Your task to perform on an android device: open app "Life360: Find Family & Friends" (install if not already installed) Image 0: 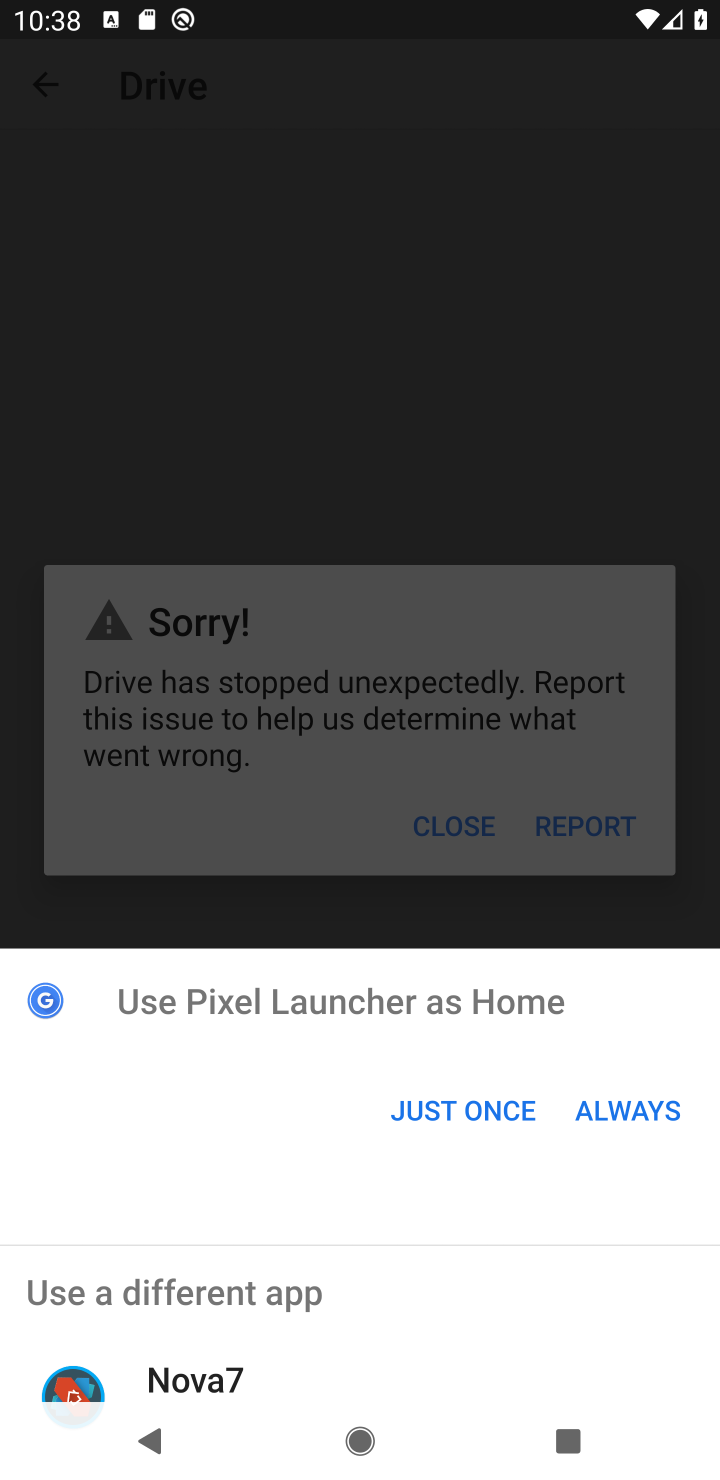
Step 0: press home button
Your task to perform on an android device: open app "Life360: Find Family & Friends" (install if not already installed) Image 1: 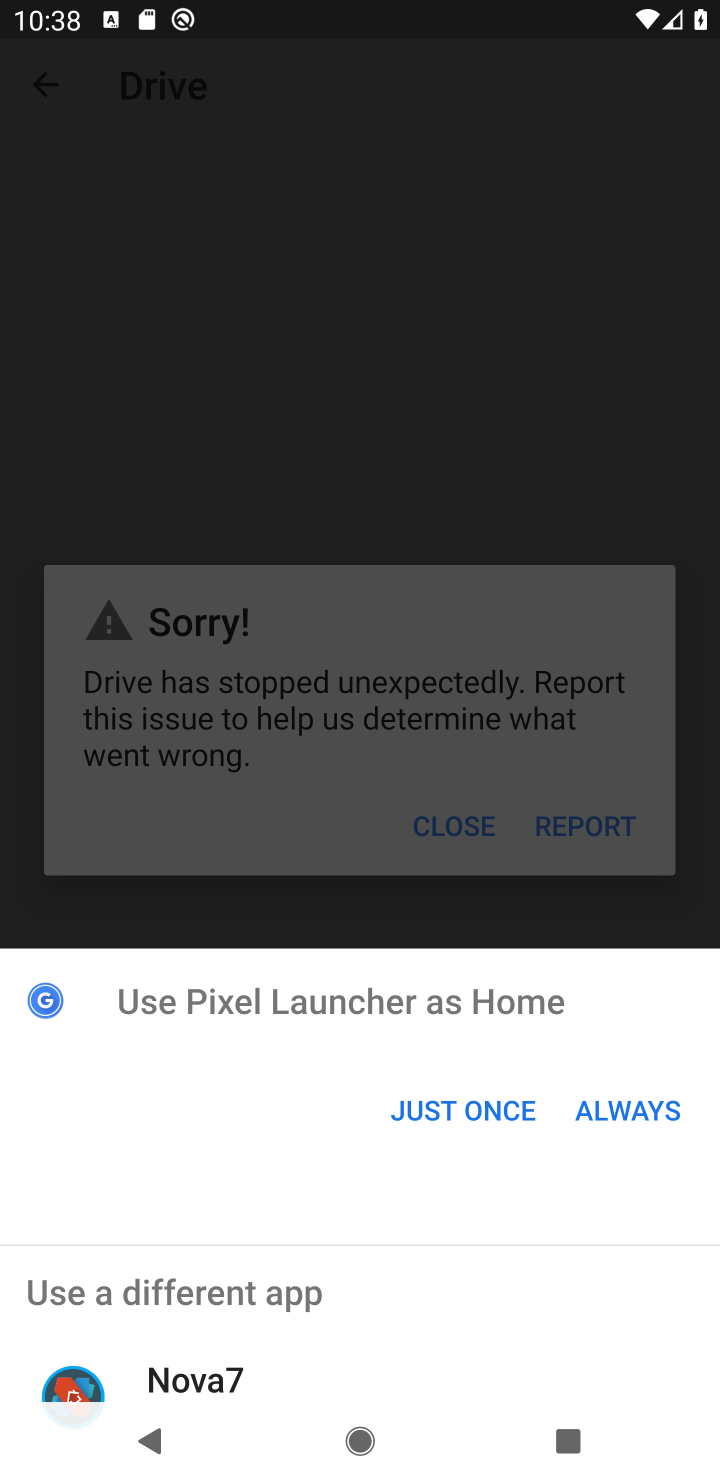
Step 1: click (450, 1114)
Your task to perform on an android device: open app "Life360: Find Family & Friends" (install if not already installed) Image 2: 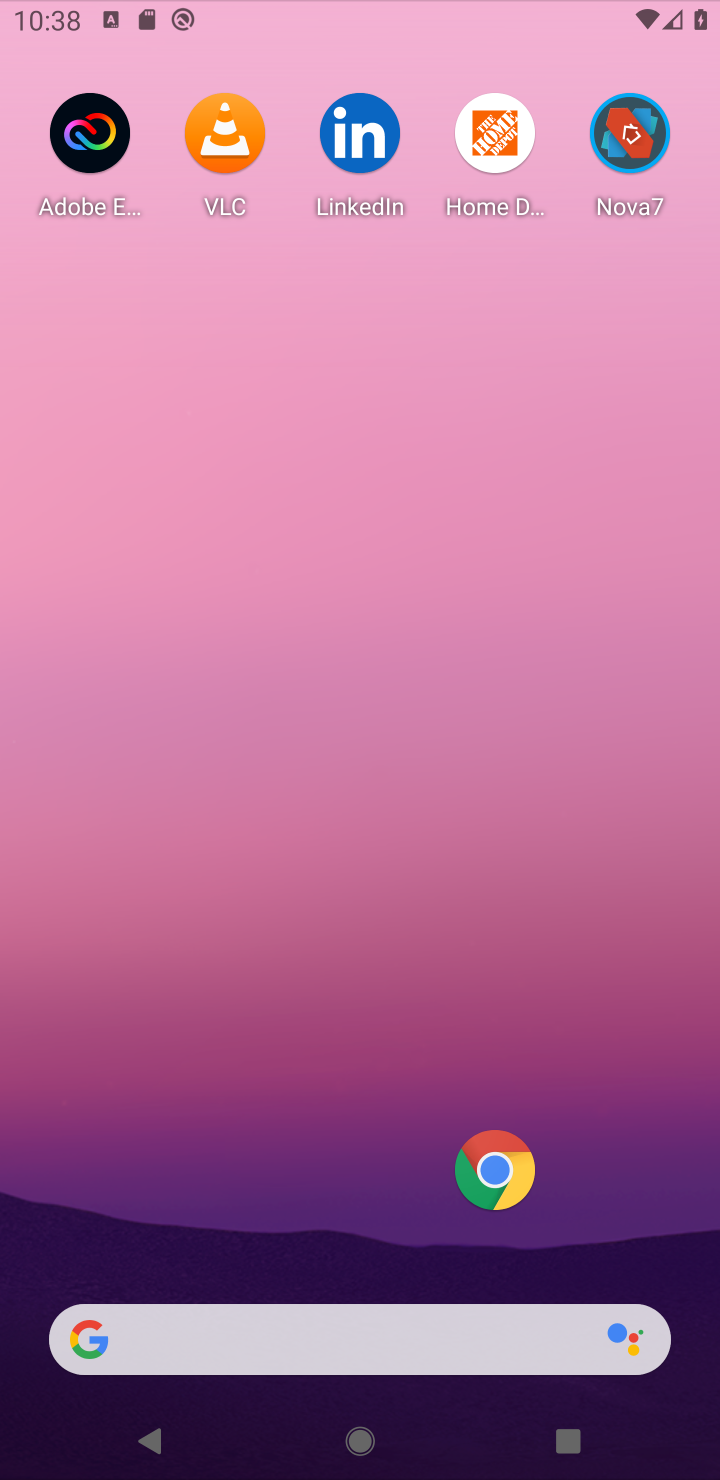
Step 2: press home button
Your task to perform on an android device: open app "Life360: Find Family & Friends" (install if not already installed) Image 3: 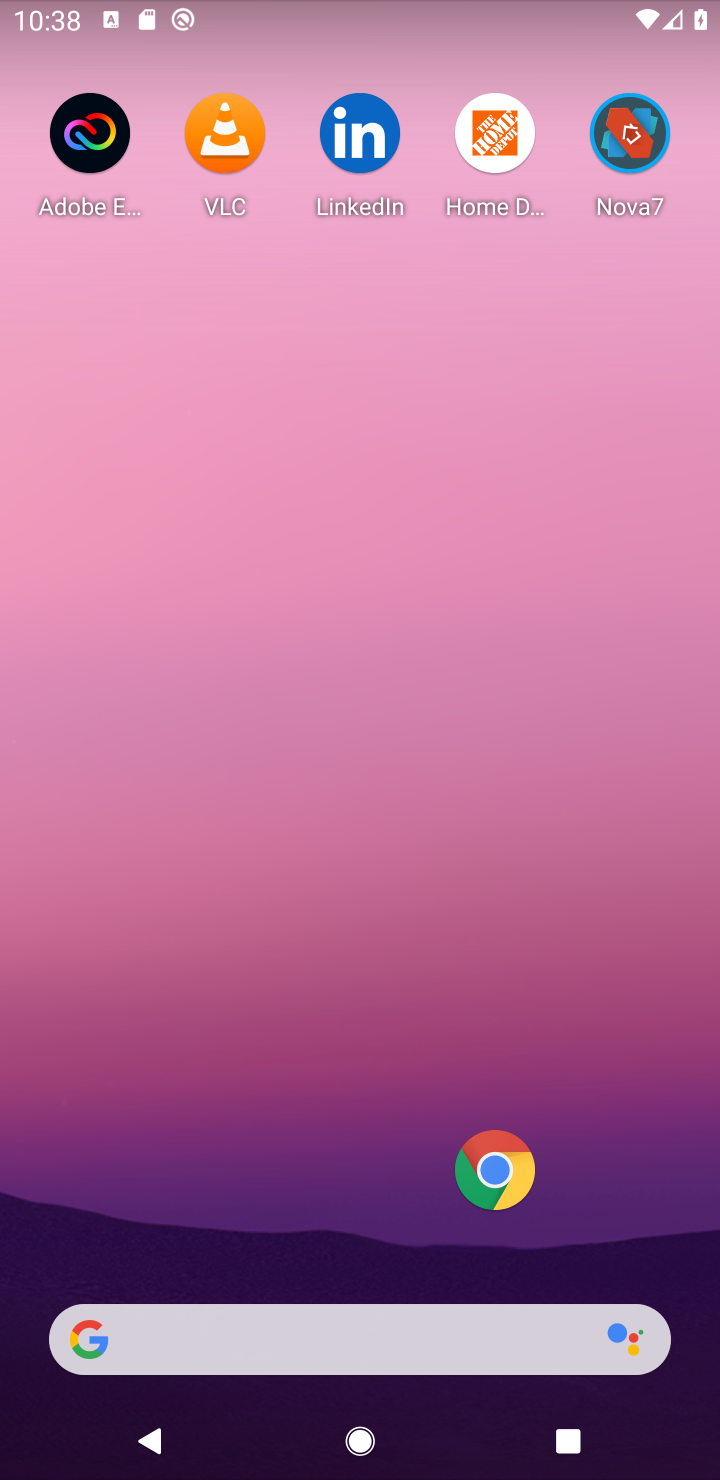
Step 3: drag from (260, 1116) to (404, 183)
Your task to perform on an android device: open app "Life360: Find Family & Friends" (install if not already installed) Image 4: 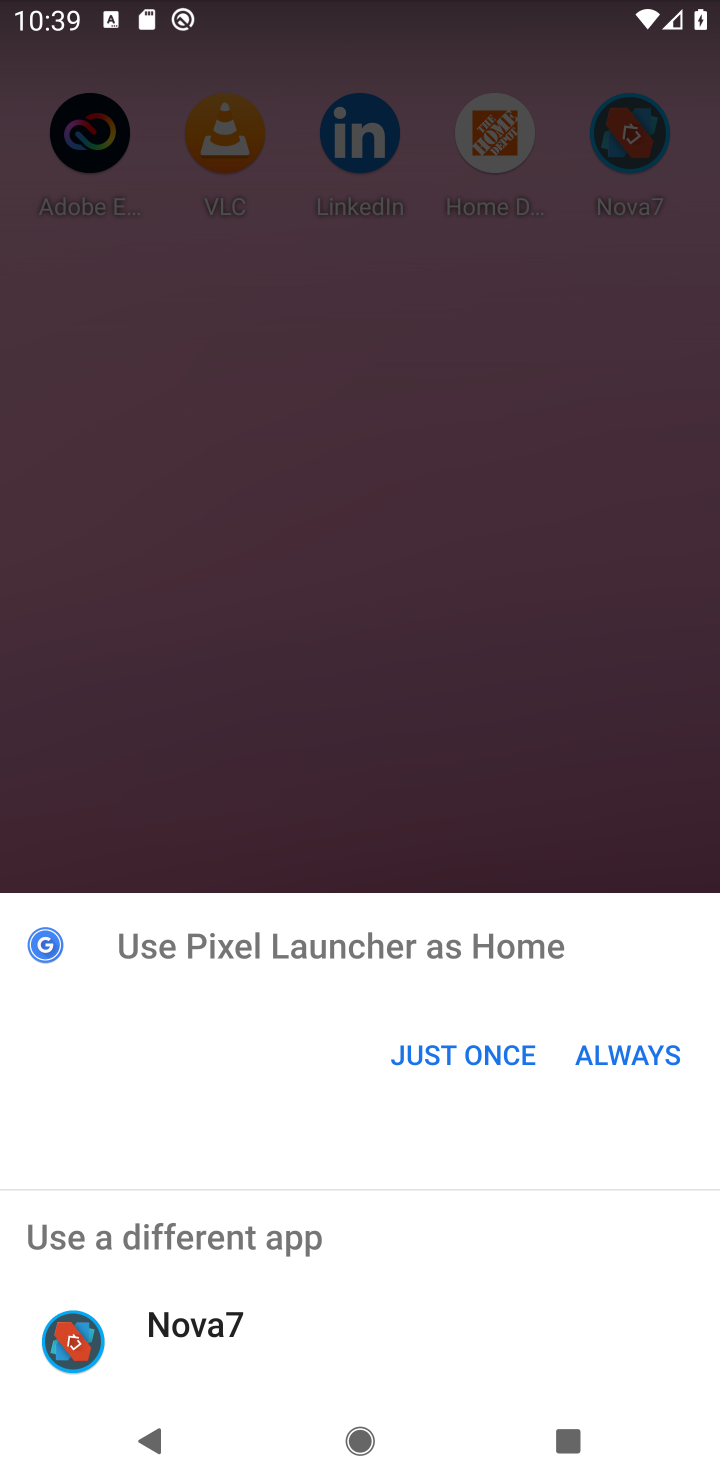
Step 4: press back button
Your task to perform on an android device: open app "Life360: Find Family & Friends" (install if not already installed) Image 5: 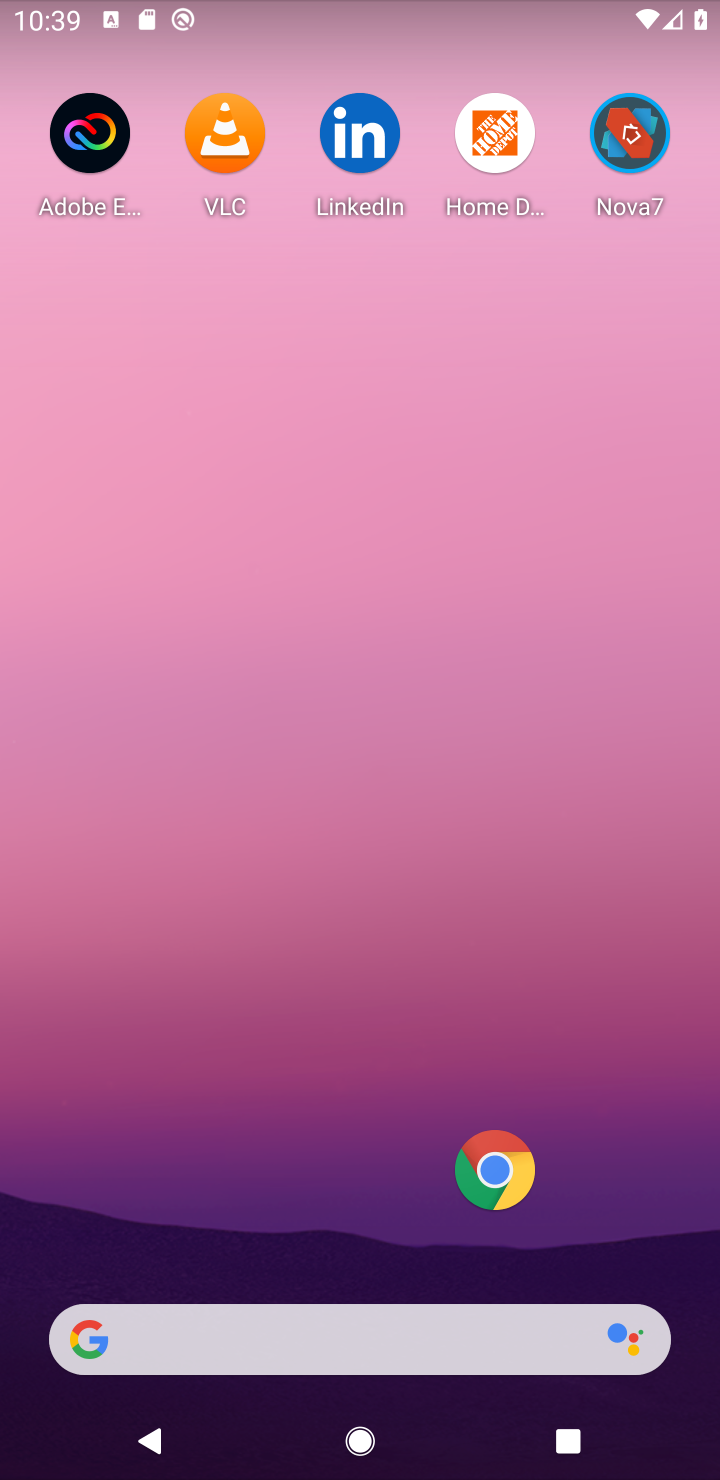
Step 5: drag from (257, 1233) to (363, 74)
Your task to perform on an android device: open app "Life360: Find Family & Friends" (install if not already installed) Image 6: 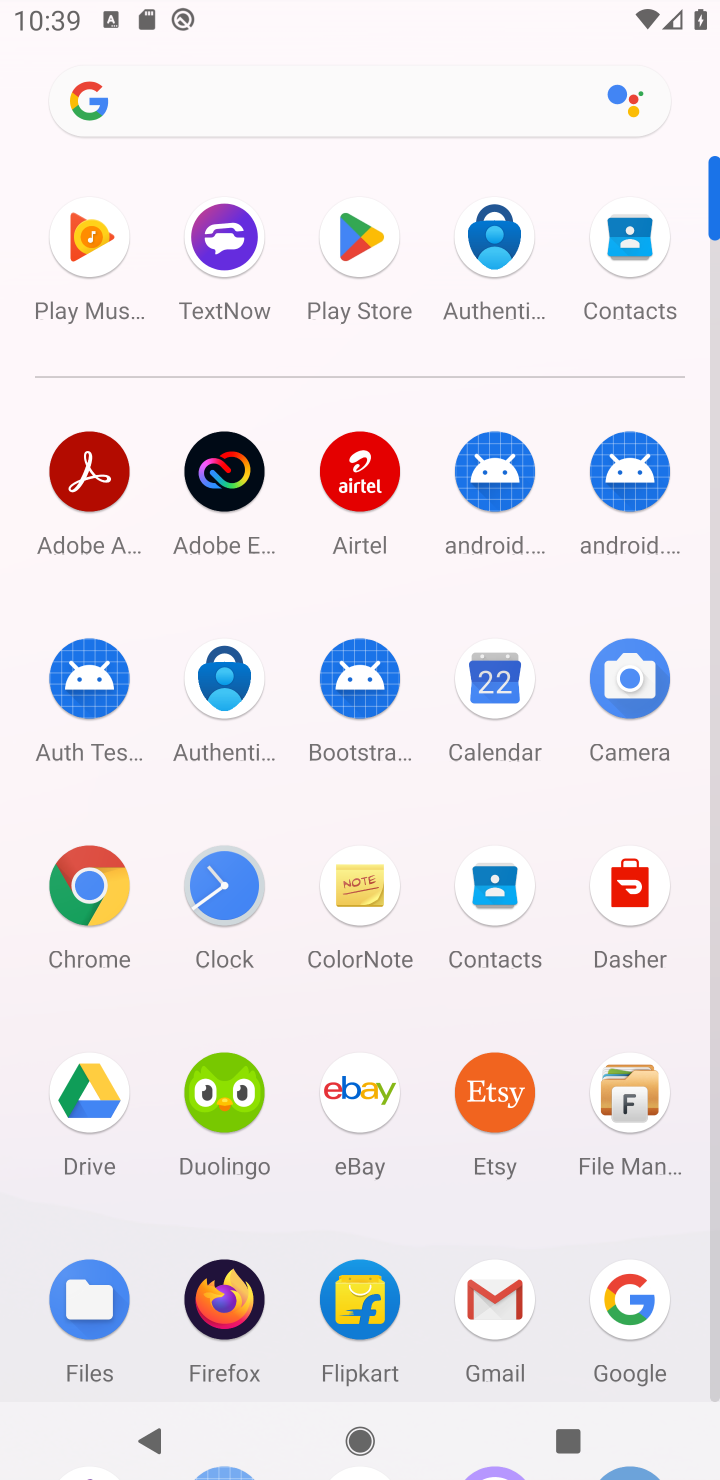
Step 6: click (358, 238)
Your task to perform on an android device: open app "Life360: Find Family & Friends" (install if not already installed) Image 7: 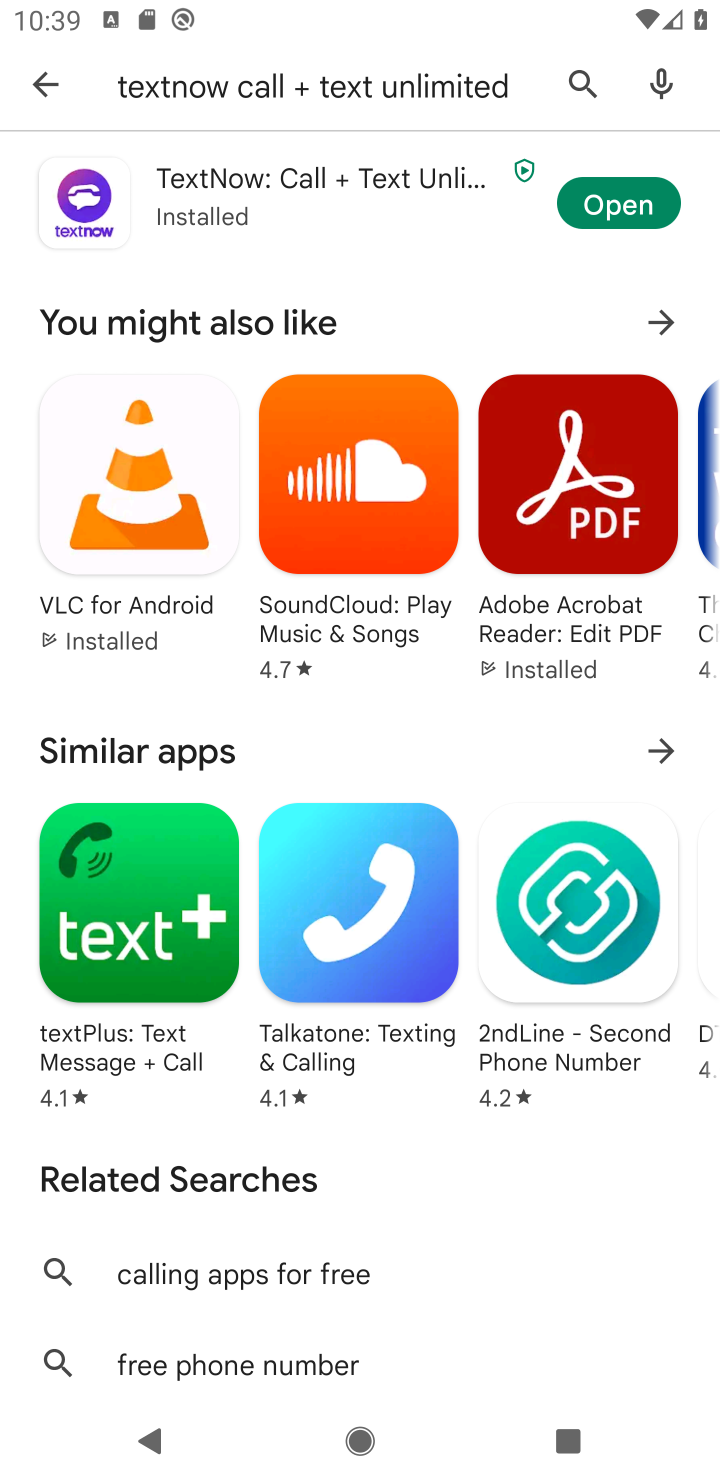
Step 7: click (583, 72)
Your task to perform on an android device: open app "Life360: Find Family & Friends" (install if not already installed) Image 8: 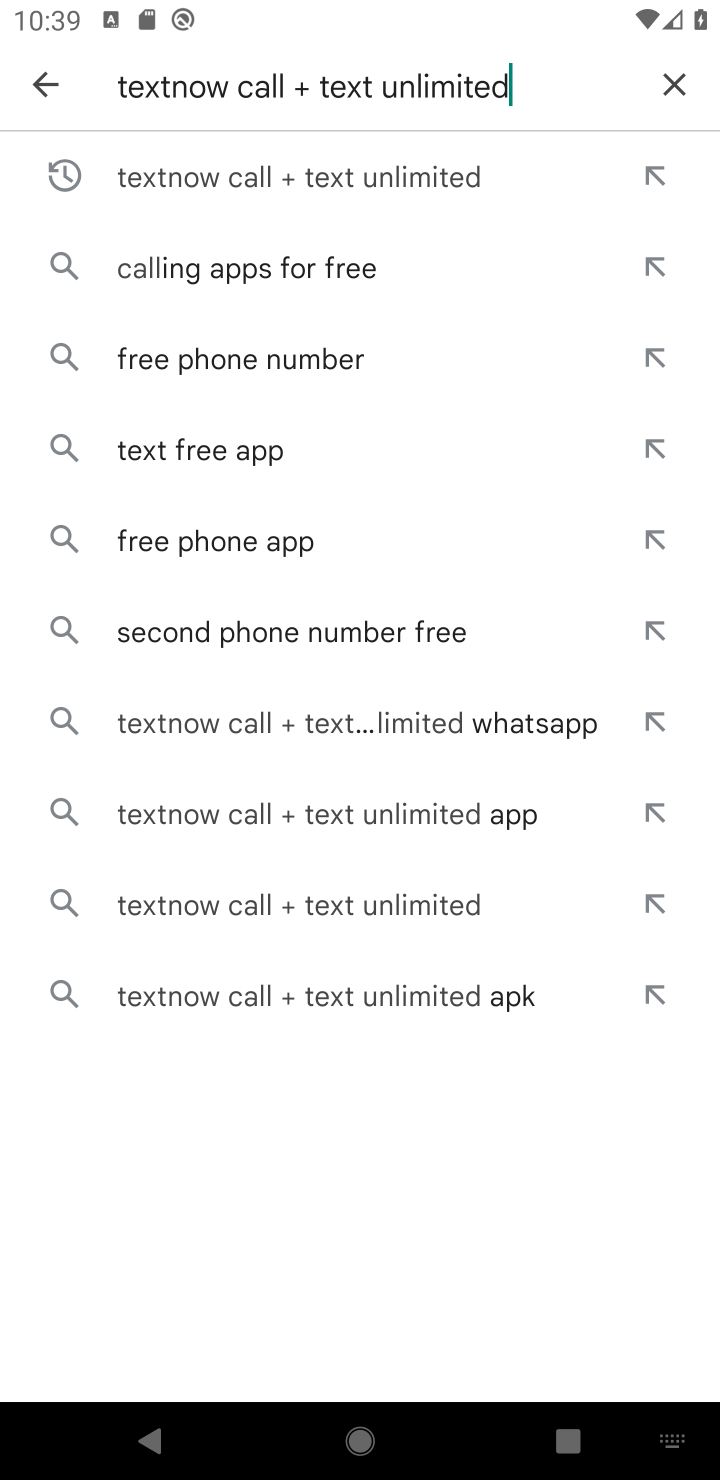
Step 8: click (679, 64)
Your task to perform on an android device: open app "Life360: Find Family & Friends" (install if not already installed) Image 9: 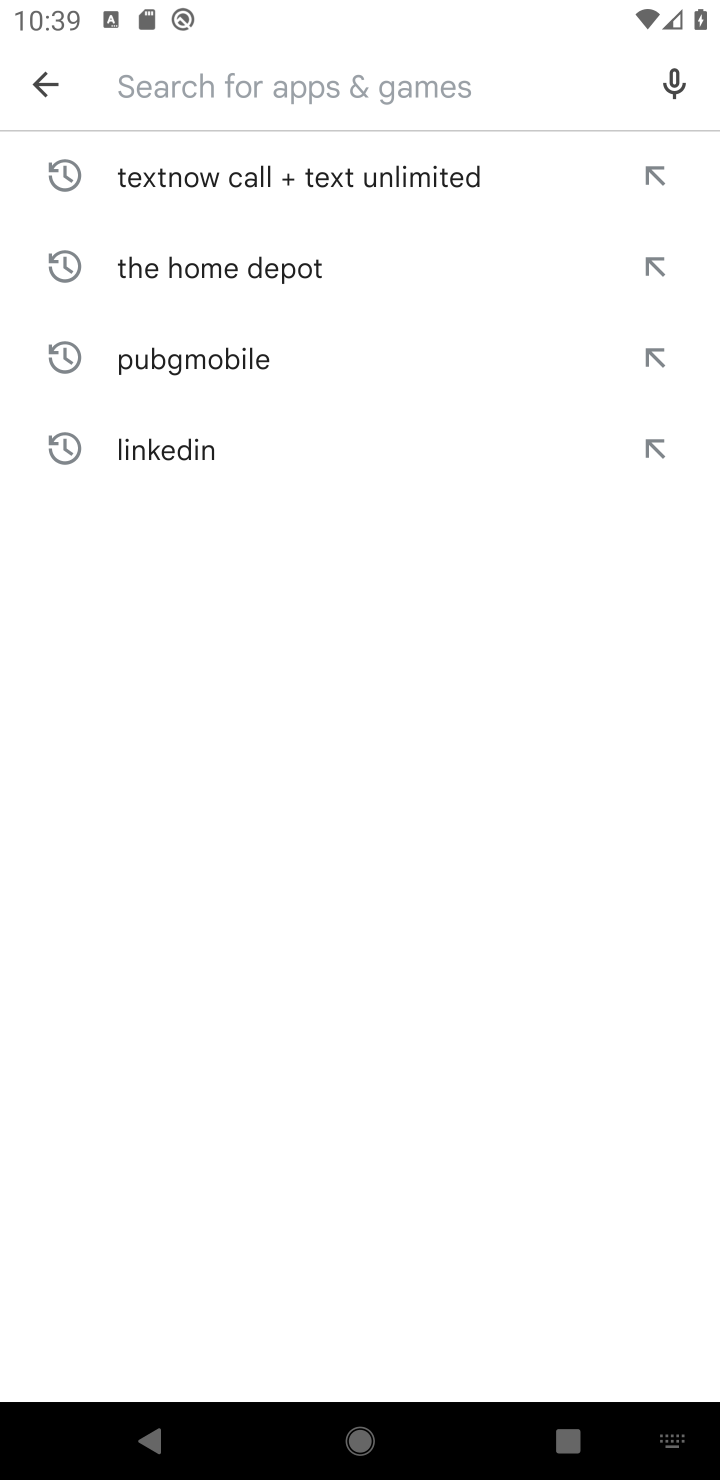
Step 9: click (240, 93)
Your task to perform on an android device: open app "Life360: Find Family & Friends" (install if not already installed) Image 10: 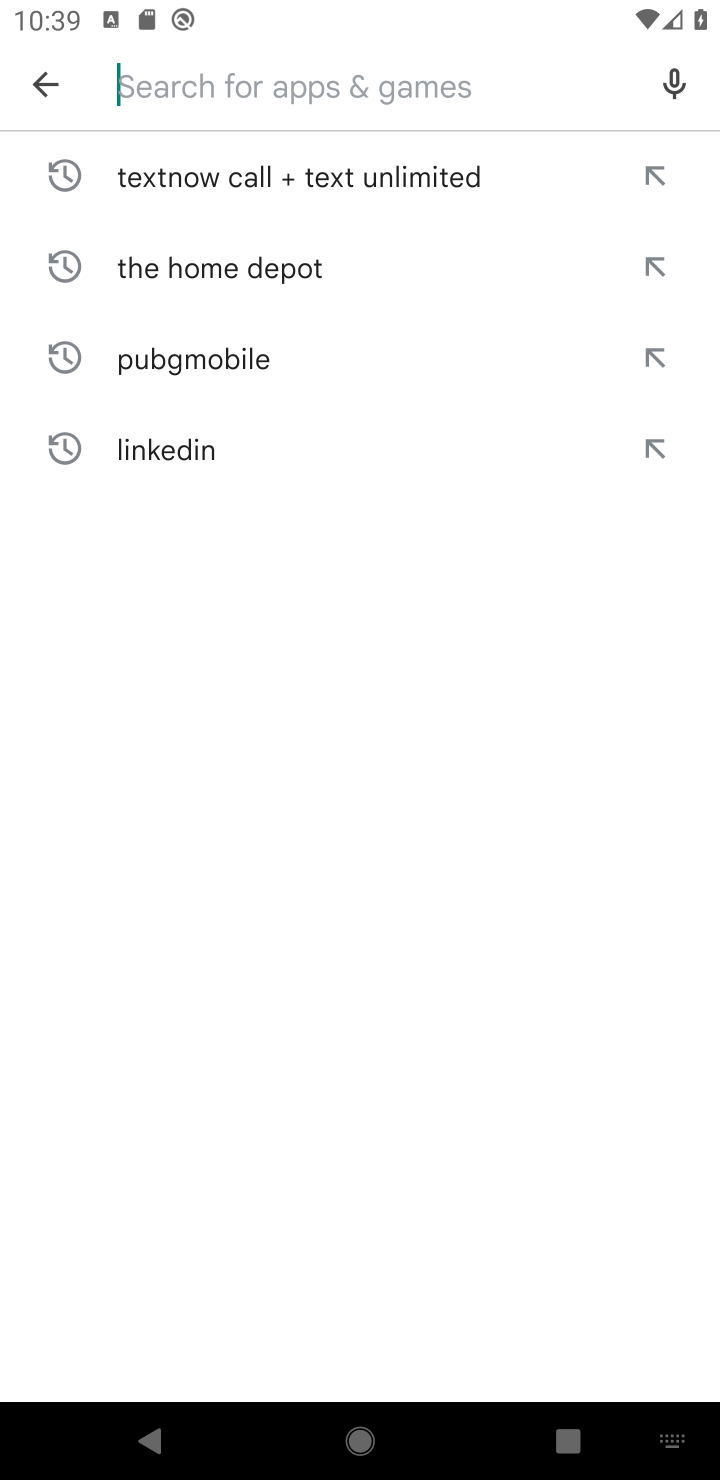
Step 10: type "Life360"
Your task to perform on an android device: open app "Life360: Find Family & Friends" (install if not already installed) Image 11: 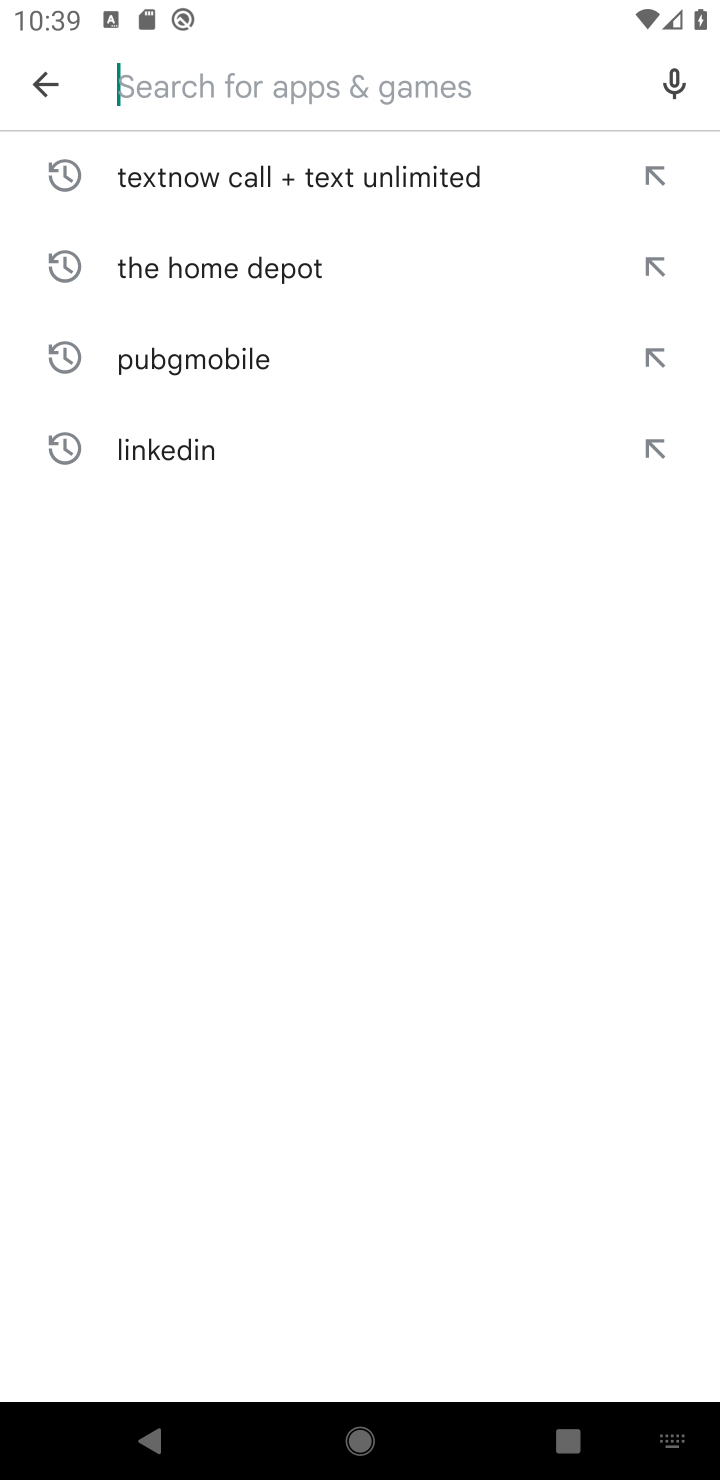
Step 11: click (271, 883)
Your task to perform on an android device: open app "Life360: Find Family & Friends" (install if not already installed) Image 12: 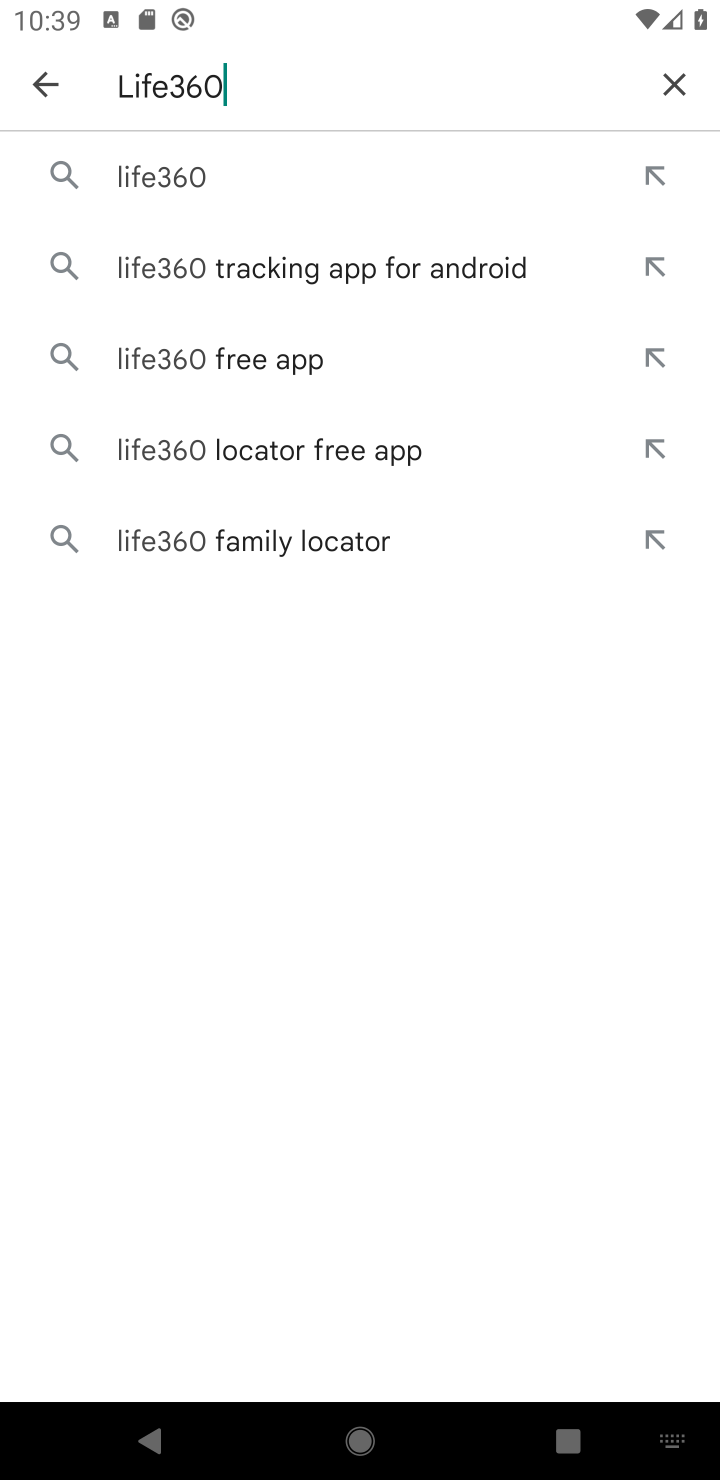
Step 12: click (220, 156)
Your task to perform on an android device: open app "Life360: Find Family & Friends" (install if not already installed) Image 13: 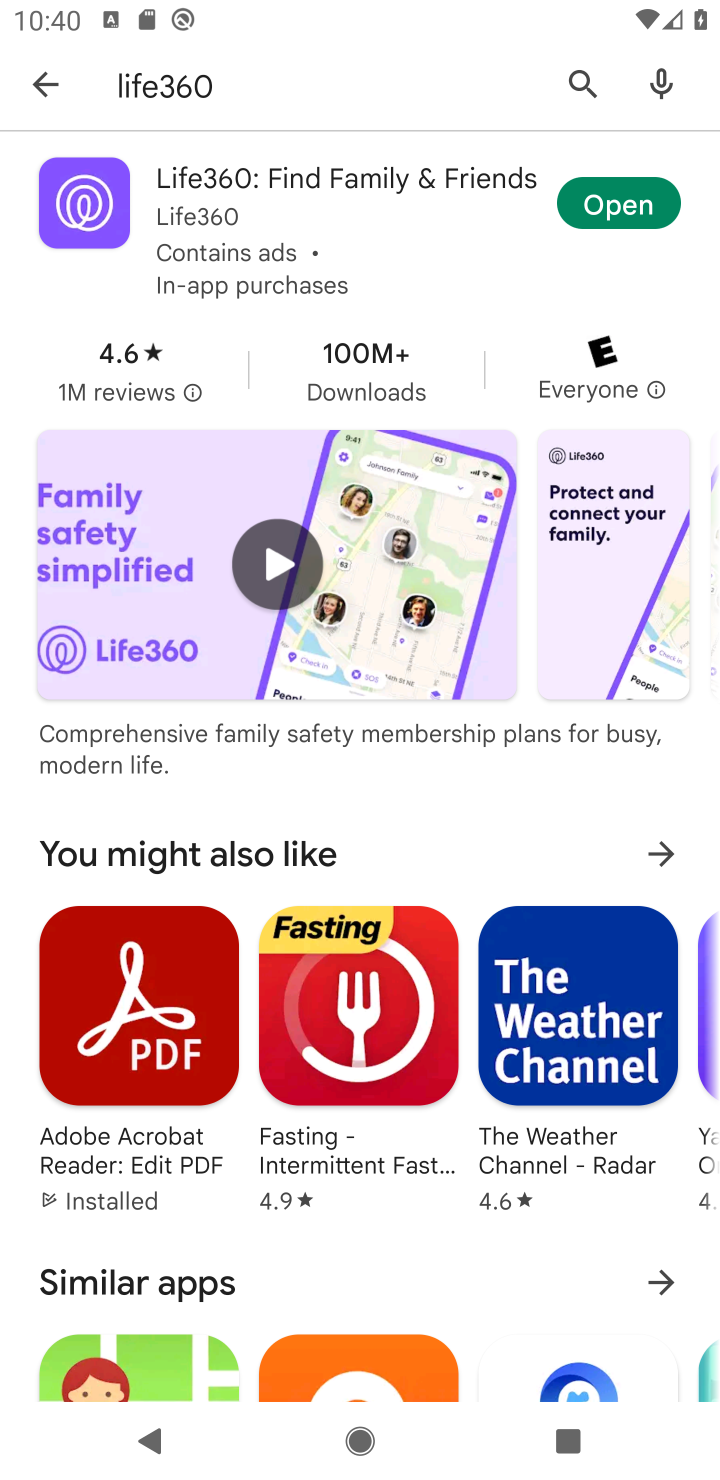
Step 13: click (644, 212)
Your task to perform on an android device: open app "Life360: Find Family & Friends" (install if not already installed) Image 14: 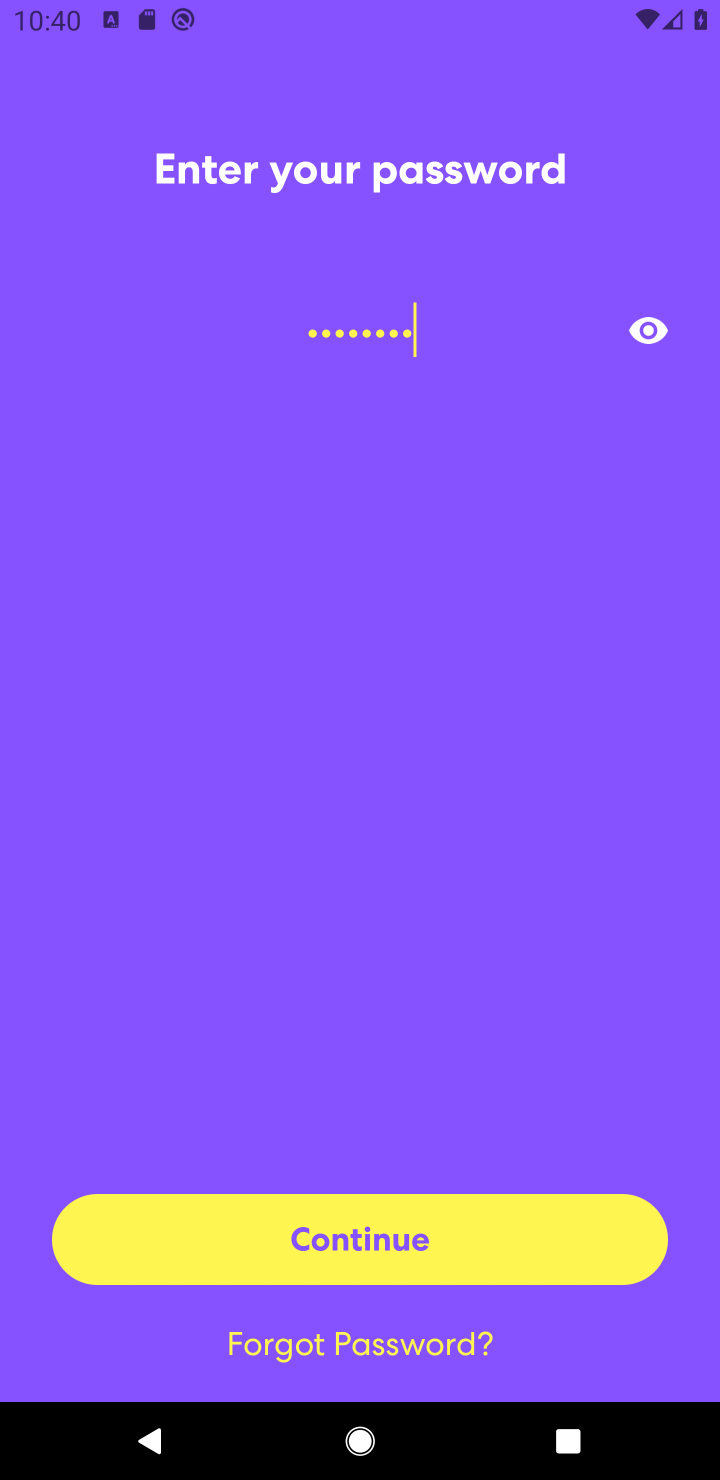
Step 14: task complete